Your task to perform on an android device: Open display settings Image 0: 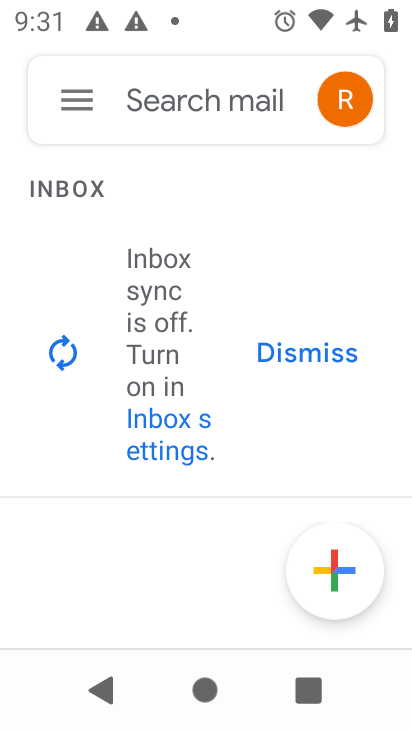
Step 0: press home button
Your task to perform on an android device: Open display settings Image 1: 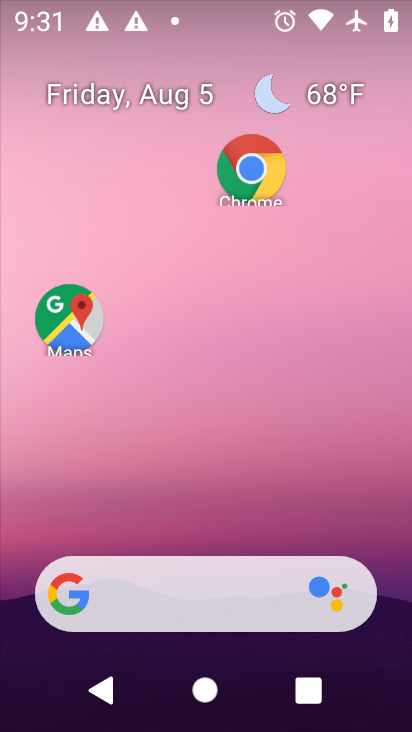
Step 1: drag from (191, 537) to (191, 154)
Your task to perform on an android device: Open display settings Image 2: 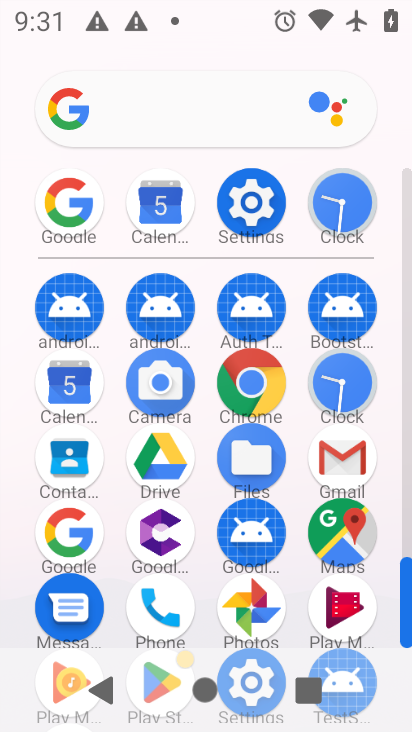
Step 2: click (244, 201)
Your task to perform on an android device: Open display settings Image 3: 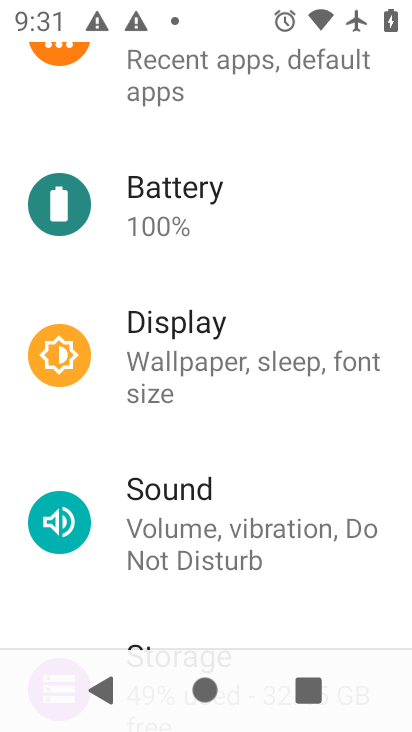
Step 3: click (198, 359)
Your task to perform on an android device: Open display settings Image 4: 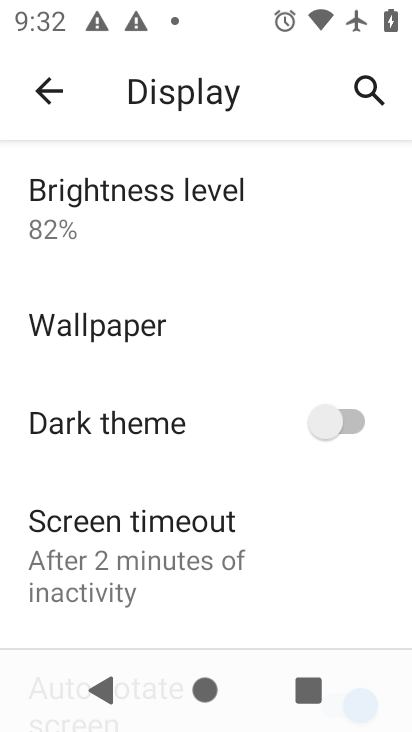
Step 4: task complete